Your task to perform on an android device: Play the latest video from the Huffington Post Image 0: 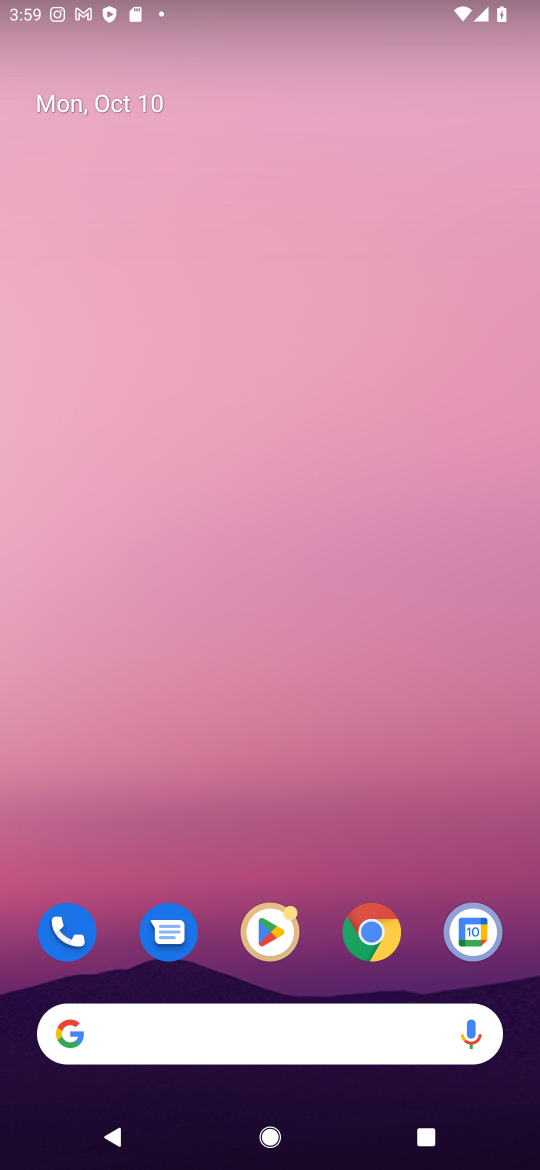
Step 0: type "Play the latest video from the Huffington Post"
Your task to perform on an android device: Play the latest video from the Huffington Post Image 1: 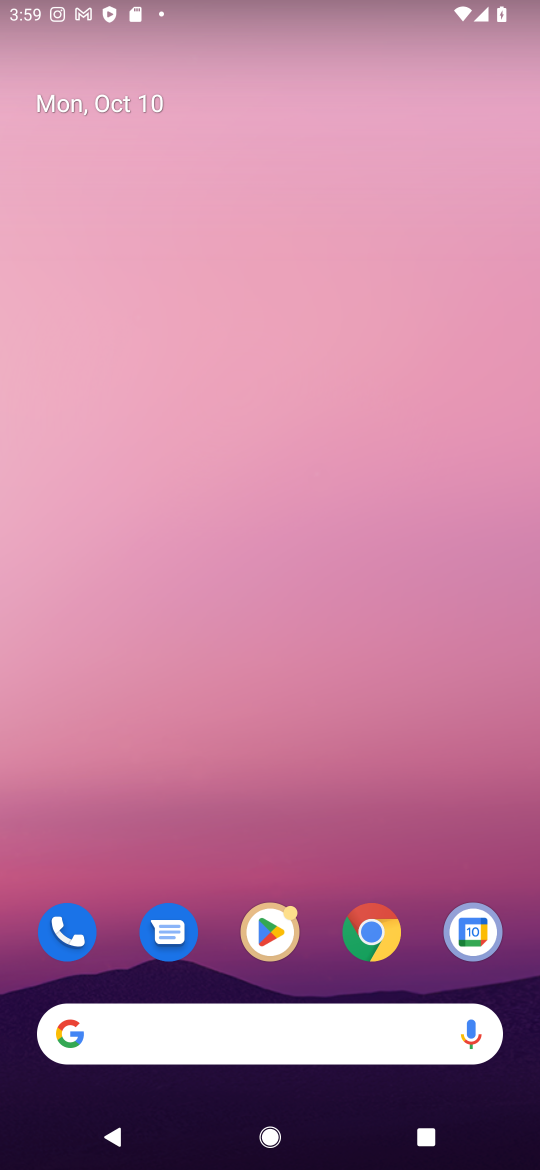
Step 1: click (220, 1044)
Your task to perform on an android device: Play the latest video from the Huffington Post Image 2: 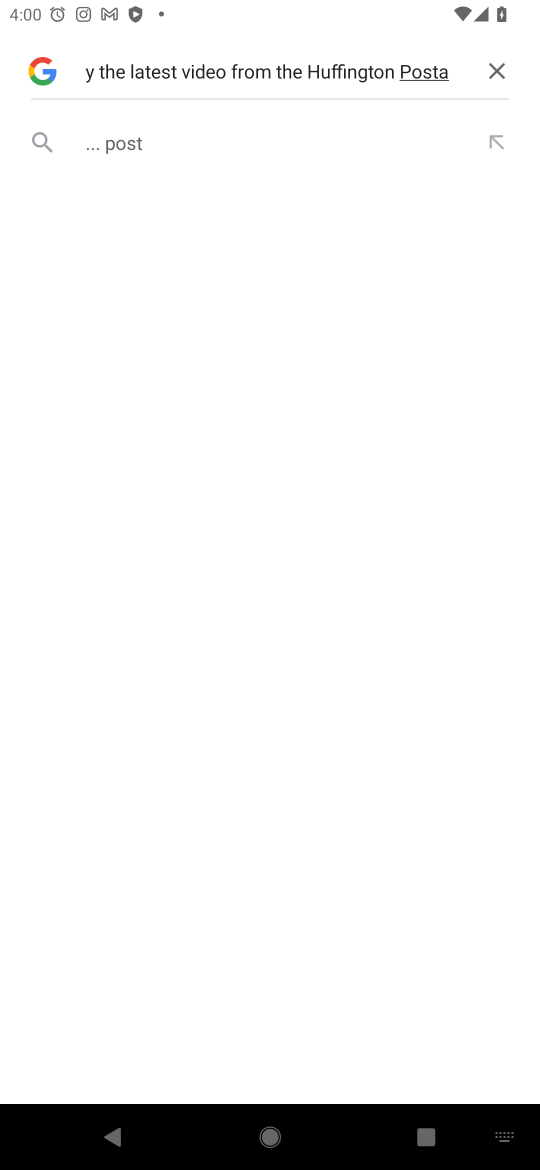
Step 2: press enter
Your task to perform on an android device: Play the latest video from the Huffington Post Image 3: 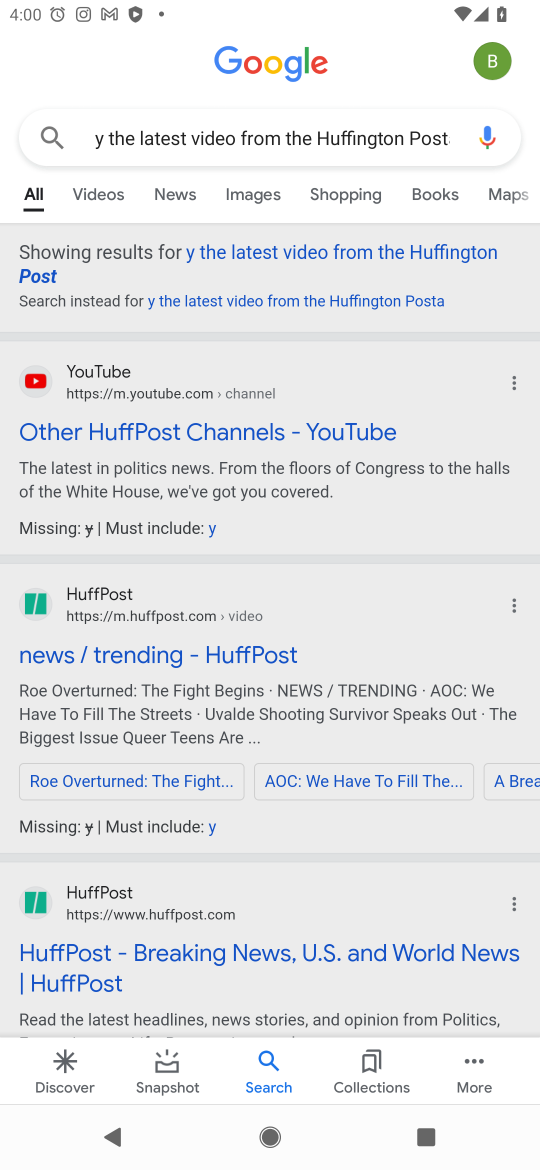
Step 3: click (263, 417)
Your task to perform on an android device: Play the latest video from the Huffington Post Image 4: 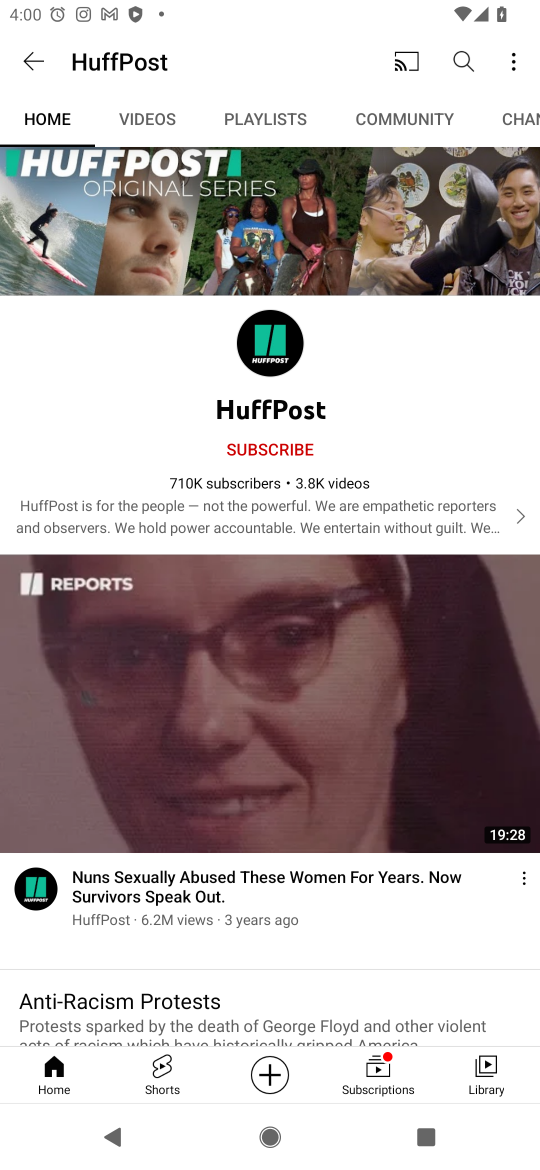
Step 4: task complete